Your task to perform on an android device: Open accessibility settings Image 0: 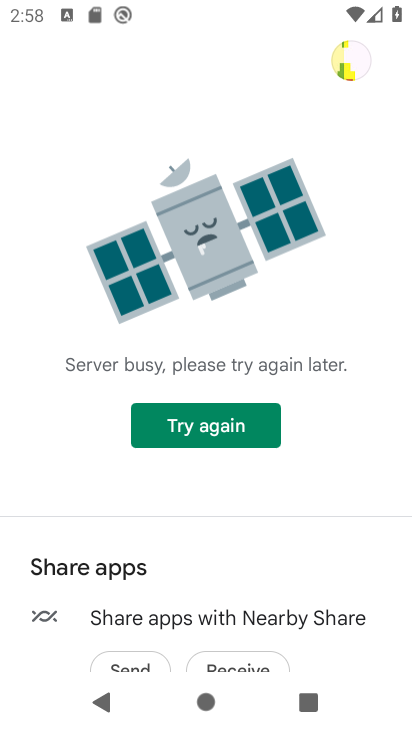
Step 0: press home button
Your task to perform on an android device: Open accessibility settings Image 1: 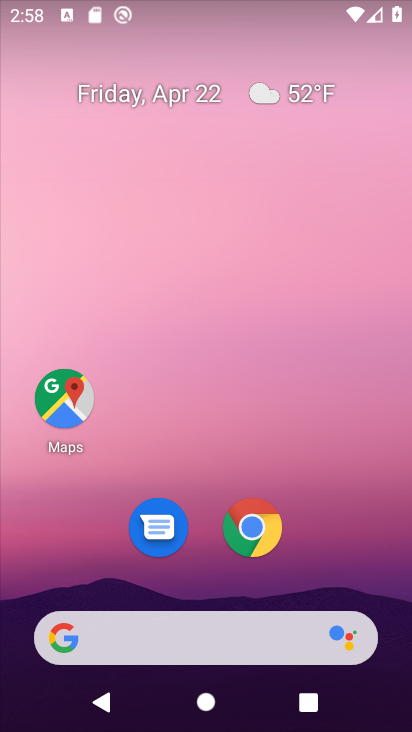
Step 1: drag from (378, 435) to (401, 42)
Your task to perform on an android device: Open accessibility settings Image 2: 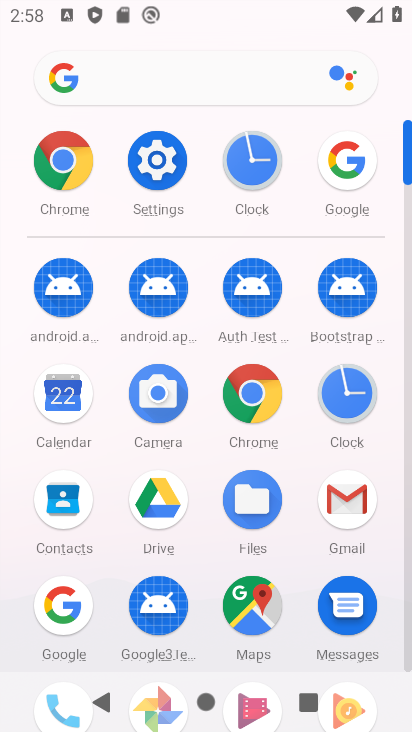
Step 2: click (155, 178)
Your task to perform on an android device: Open accessibility settings Image 3: 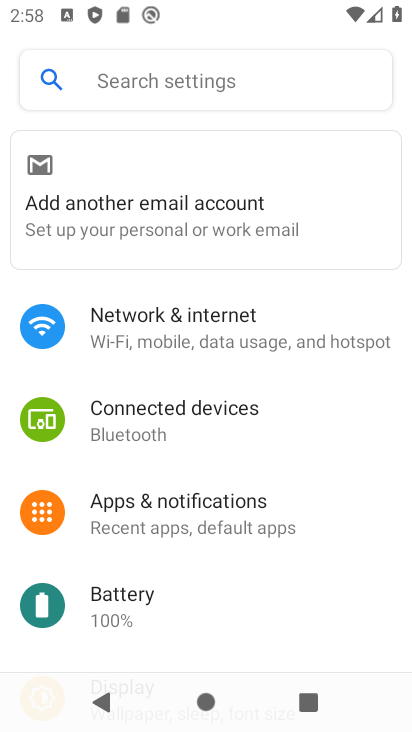
Step 3: drag from (158, 540) to (252, 209)
Your task to perform on an android device: Open accessibility settings Image 4: 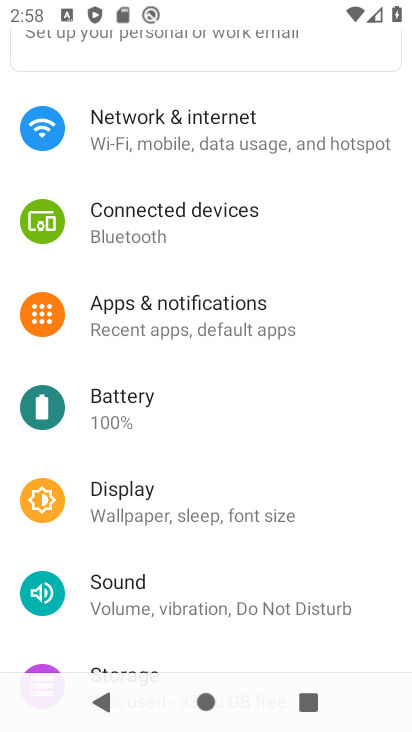
Step 4: drag from (192, 617) to (252, 306)
Your task to perform on an android device: Open accessibility settings Image 5: 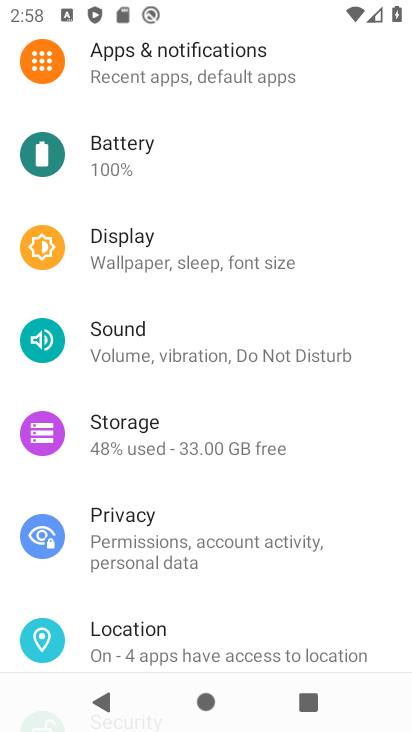
Step 5: drag from (204, 601) to (267, 261)
Your task to perform on an android device: Open accessibility settings Image 6: 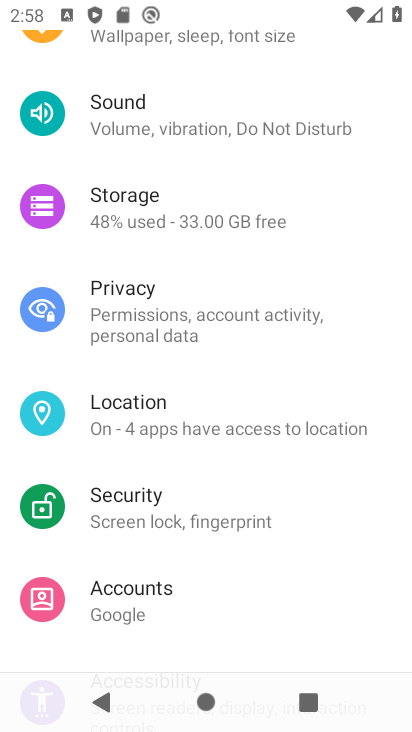
Step 6: drag from (180, 592) to (294, 203)
Your task to perform on an android device: Open accessibility settings Image 7: 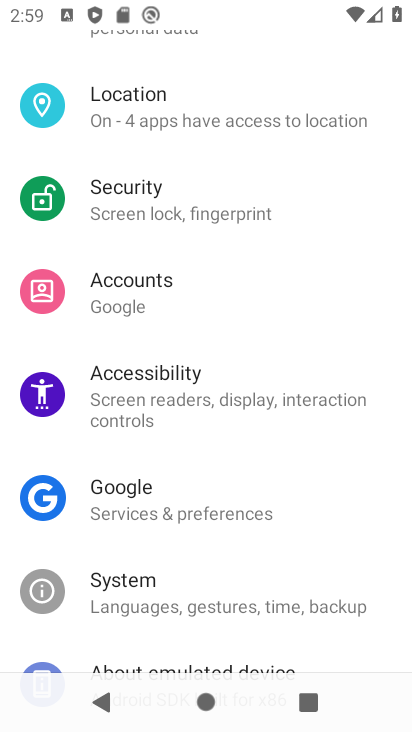
Step 7: click (201, 403)
Your task to perform on an android device: Open accessibility settings Image 8: 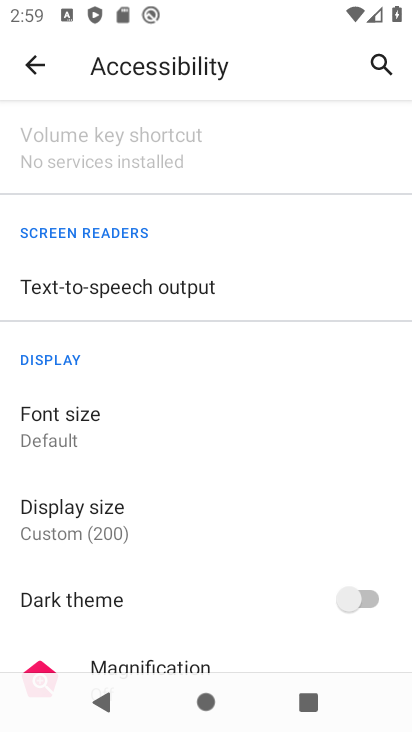
Step 8: task complete